Your task to perform on an android device: Open battery settings Image 0: 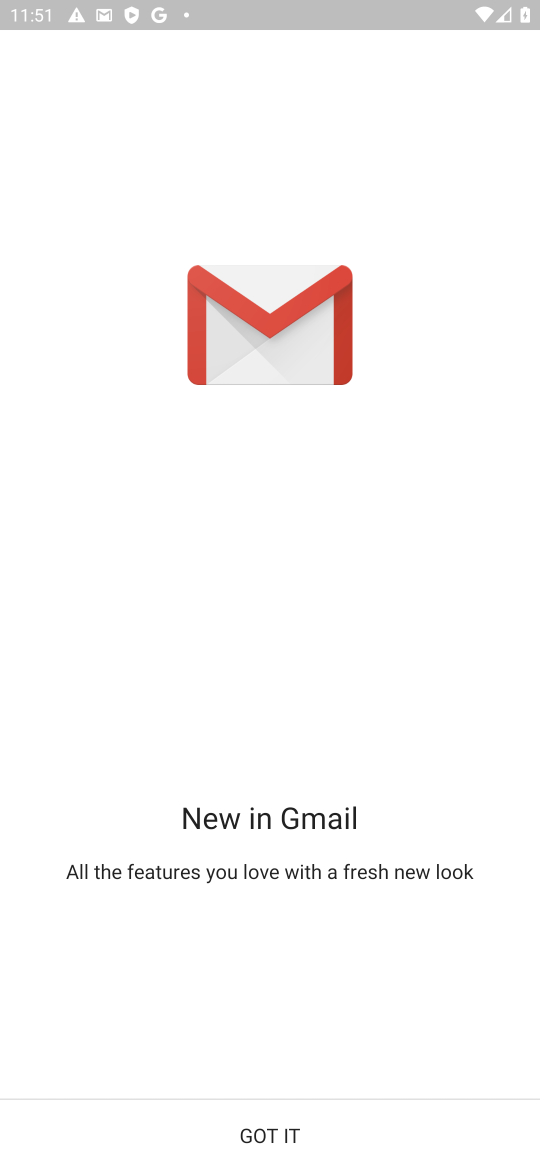
Step 0: click (309, 1146)
Your task to perform on an android device: Open battery settings Image 1: 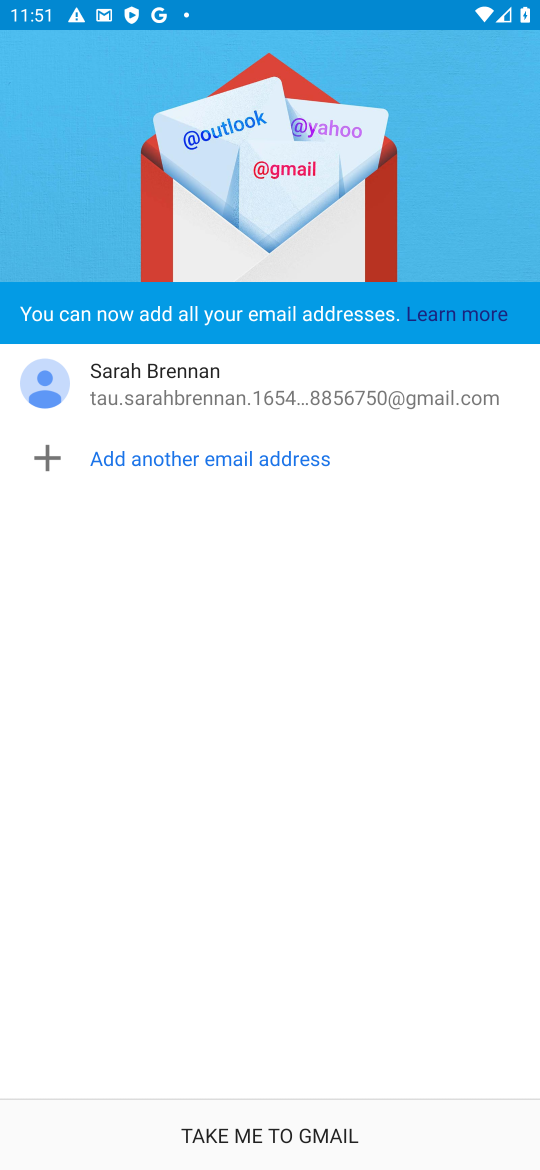
Step 1: press home button
Your task to perform on an android device: Open battery settings Image 2: 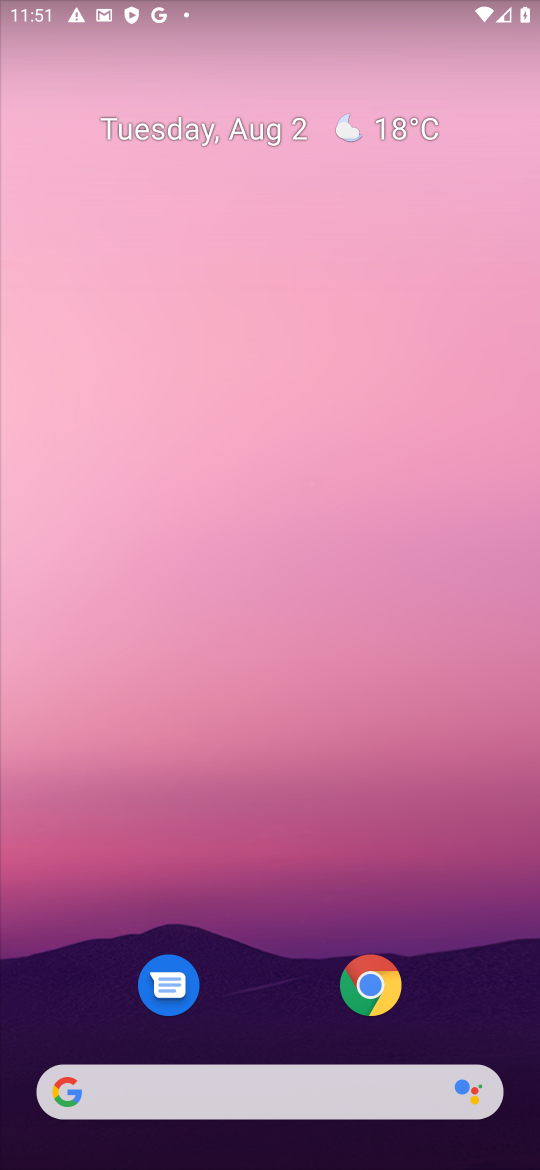
Step 2: drag from (294, 1019) to (259, 193)
Your task to perform on an android device: Open battery settings Image 3: 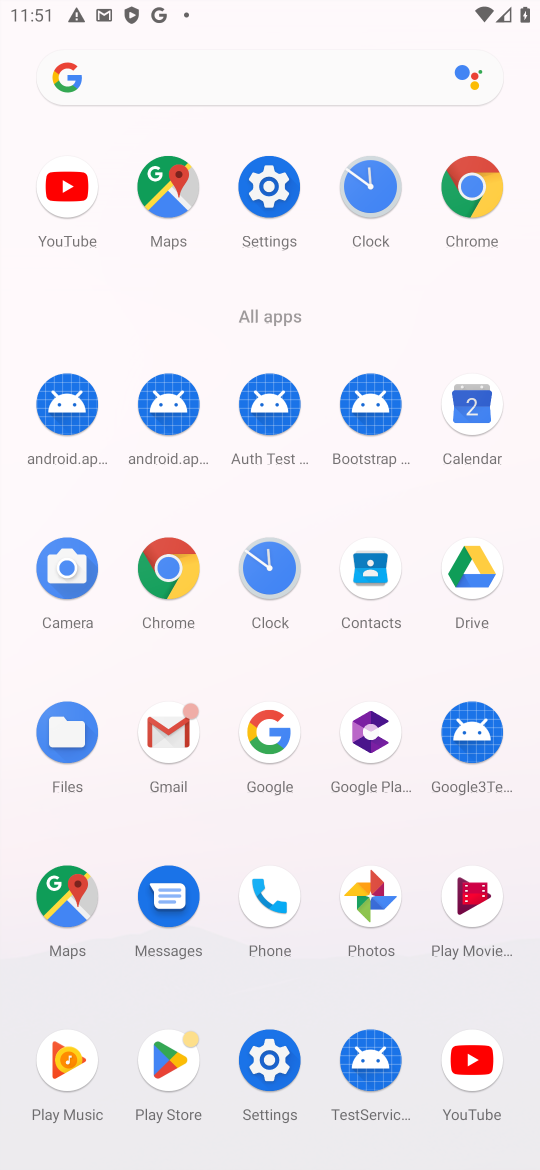
Step 3: click (271, 232)
Your task to perform on an android device: Open battery settings Image 4: 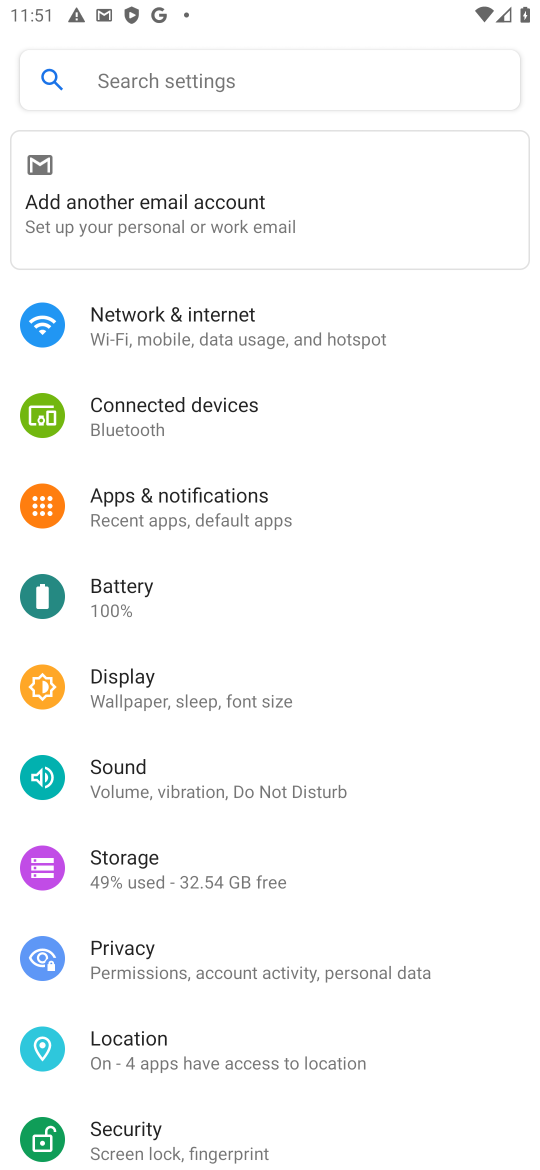
Step 4: click (272, 585)
Your task to perform on an android device: Open battery settings Image 5: 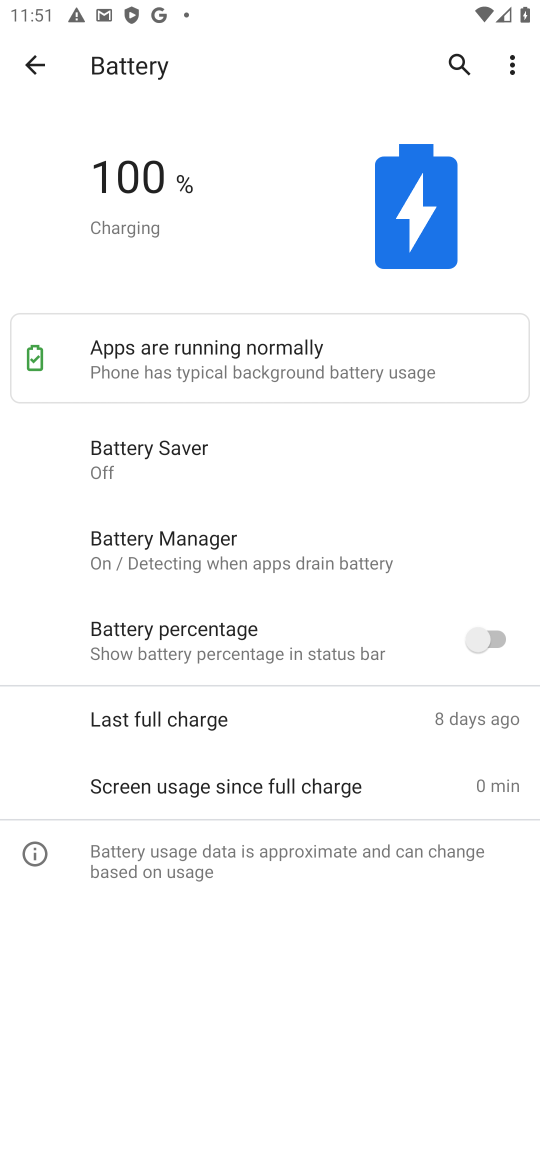
Step 5: task complete